Your task to perform on an android device: turn on javascript in the chrome app Image 0: 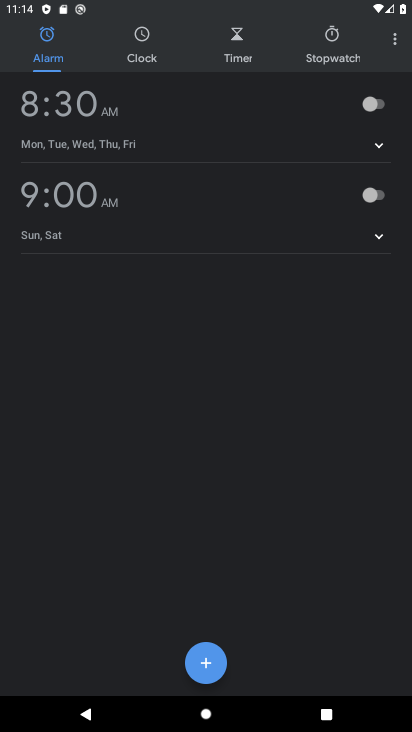
Step 0: press home button
Your task to perform on an android device: turn on javascript in the chrome app Image 1: 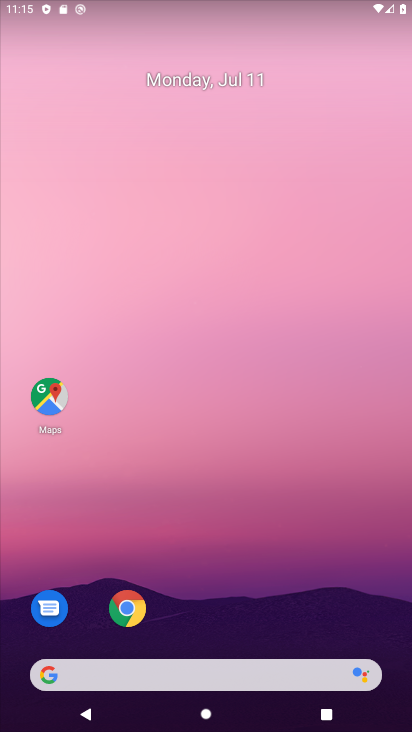
Step 1: click (127, 603)
Your task to perform on an android device: turn on javascript in the chrome app Image 2: 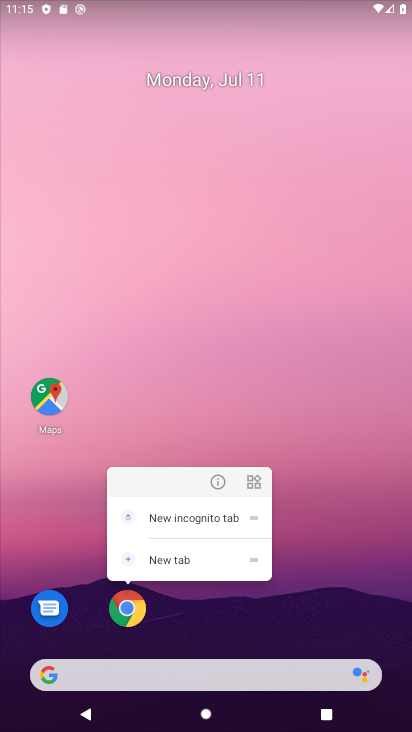
Step 2: click (178, 567)
Your task to perform on an android device: turn on javascript in the chrome app Image 3: 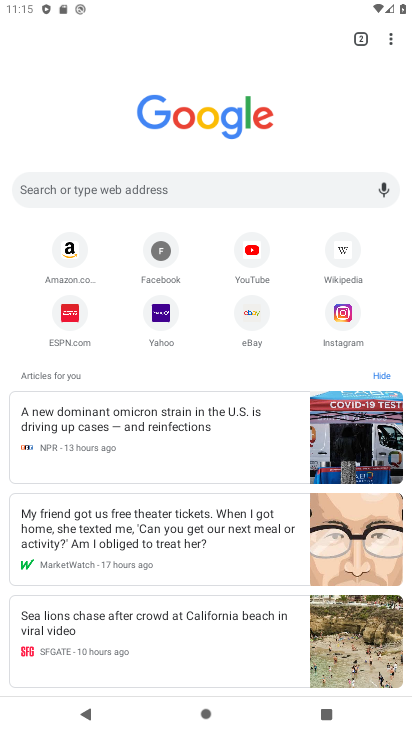
Step 3: click (389, 31)
Your task to perform on an android device: turn on javascript in the chrome app Image 4: 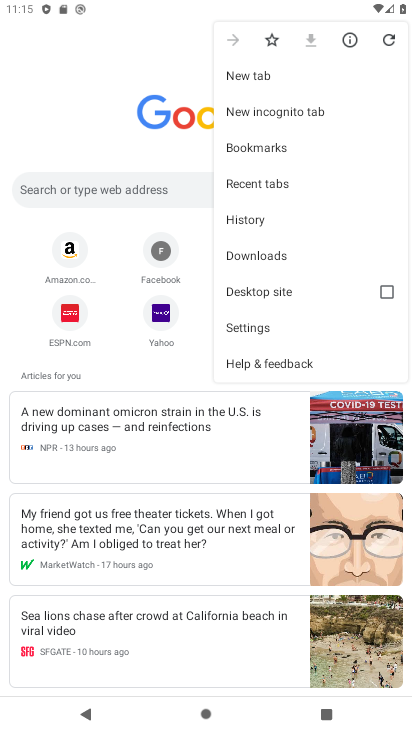
Step 4: click (291, 319)
Your task to perform on an android device: turn on javascript in the chrome app Image 5: 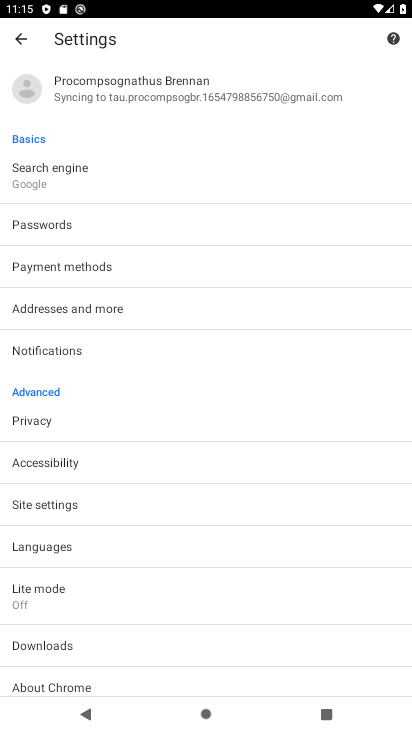
Step 5: click (73, 506)
Your task to perform on an android device: turn on javascript in the chrome app Image 6: 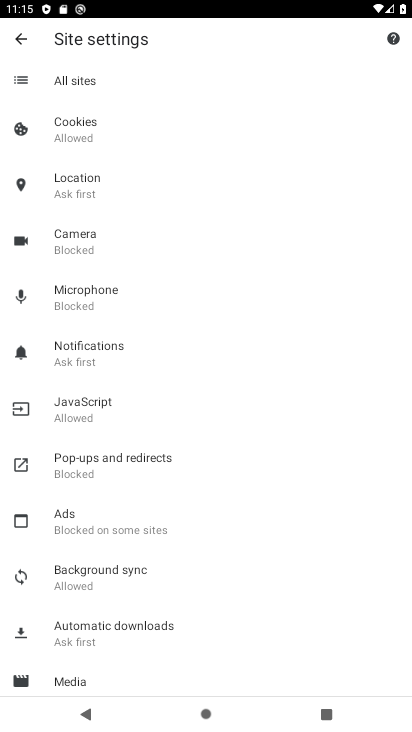
Step 6: click (108, 418)
Your task to perform on an android device: turn on javascript in the chrome app Image 7: 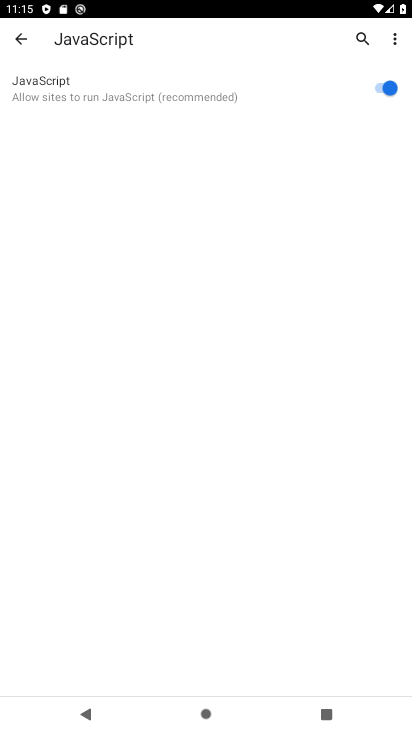
Step 7: task complete